Your task to perform on an android device: change the clock style Image 0: 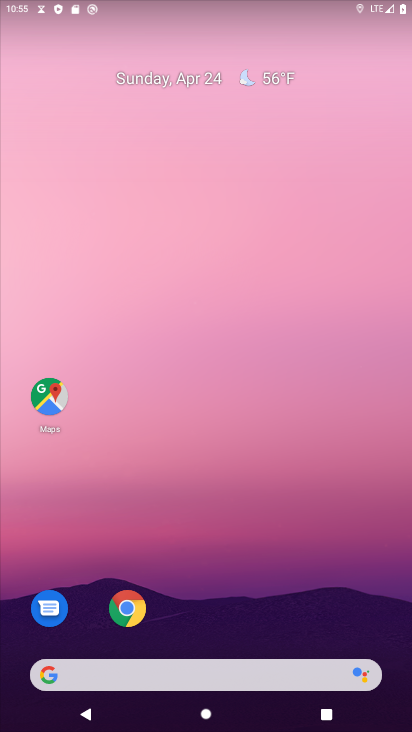
Step 0: drag from (231, 552) to (403, 242)
Your task to perform on an android device: change the clock style Image 1: 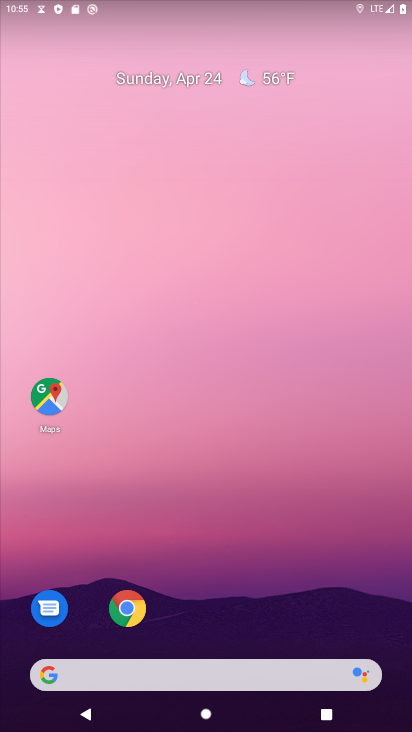
Step 1: drag from (242, 647) to (230, 65)
Your task to perform on an android device: change the clock style Image 2: 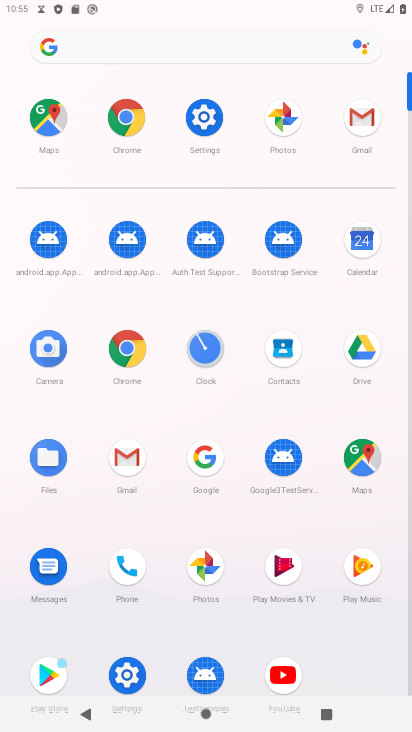
Step 2: click (201, 357)
Your task to perform on an android device: change the clock style Image 3: 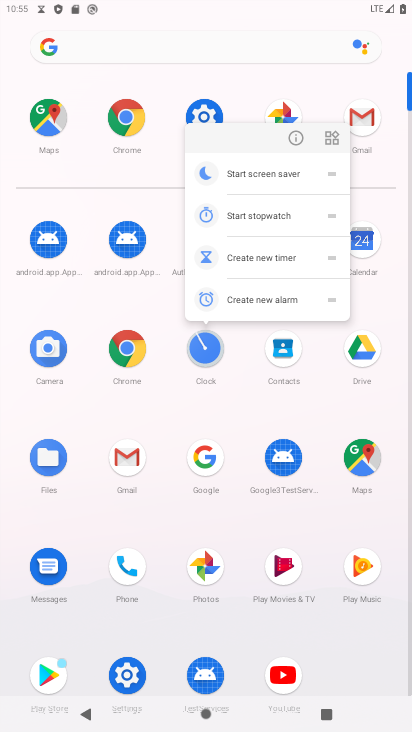
Step 3: click (189, 344)
Your task to perform on an android device: change the clock style Image 4: 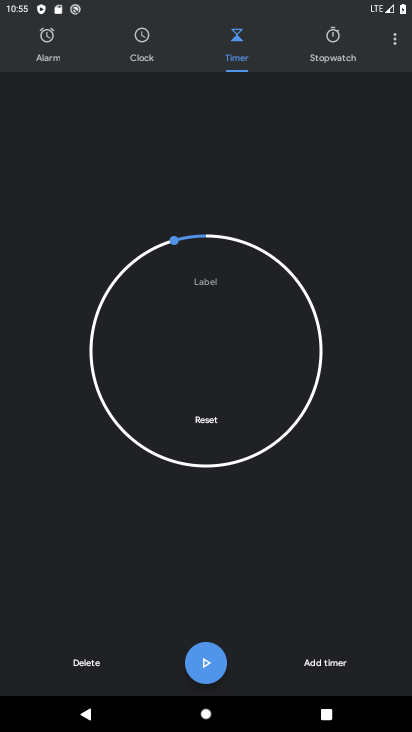
Step 4: click (393, 39)
Your task to perform on an android device: change the clock style Image 5: 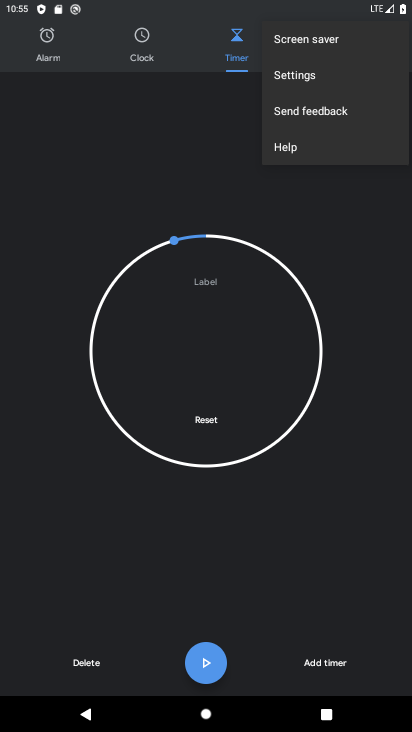
Step 5: click (309, 66)
Your task to perform on an android device: change the clock style Image 6: 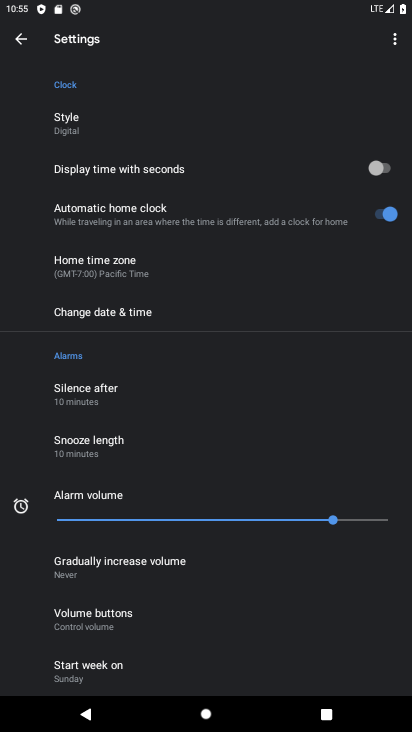
Step 6: drag from (98, 172) to (94, 107)
Your task to perform on an android device: change the clock style Image 7: 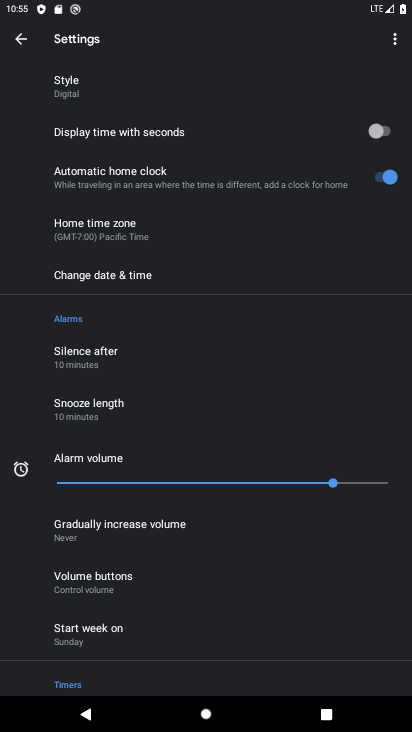
Step 7: click (81, 102)
Your task to perform on an android device: change the clock style Image 8: 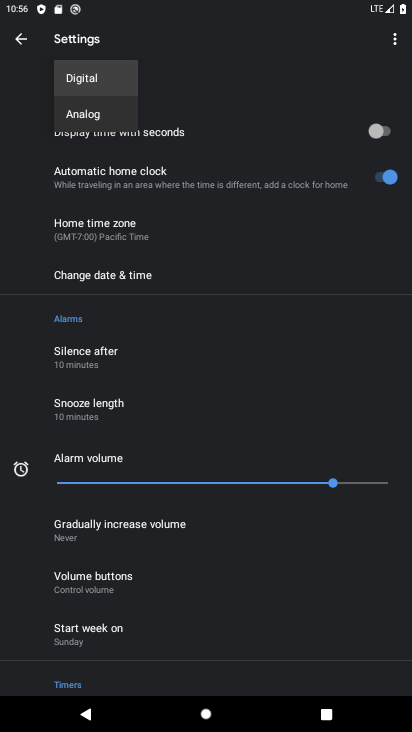
Step 8: click (83, 113)
Your task to perform on an android device: change the clock style Image 9: 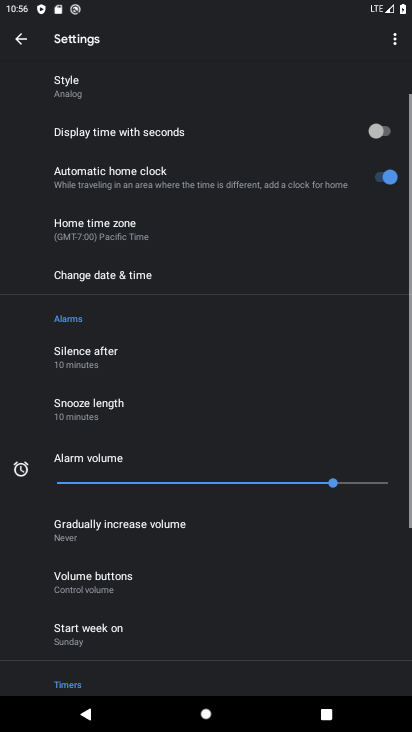
Step 9: task complete